Your task to perform on an android device: Go to internet settings Image 0: 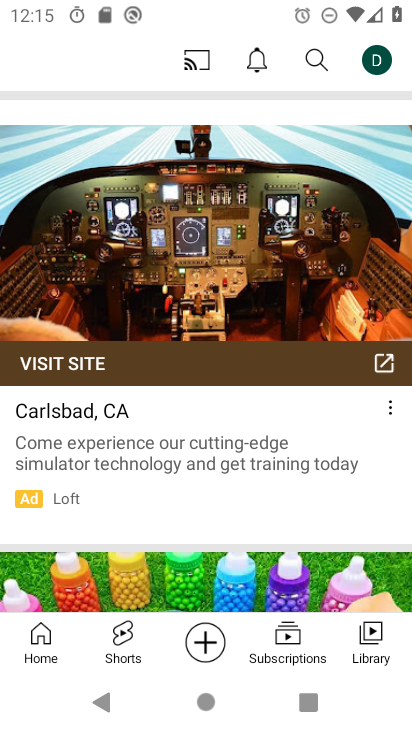
Step 0: press home button
Your task to perform on an android device: Go to internet settings Image 1: 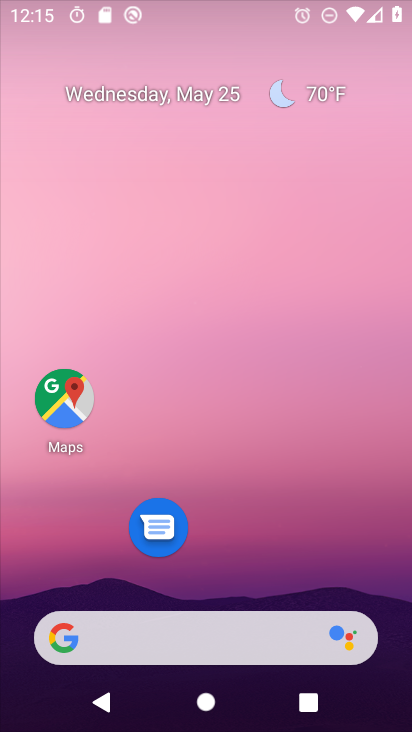
Step 1: drag from (253, 549) to (270, 79)
Your task to perform on an android device: Go to internet settings Image 2: 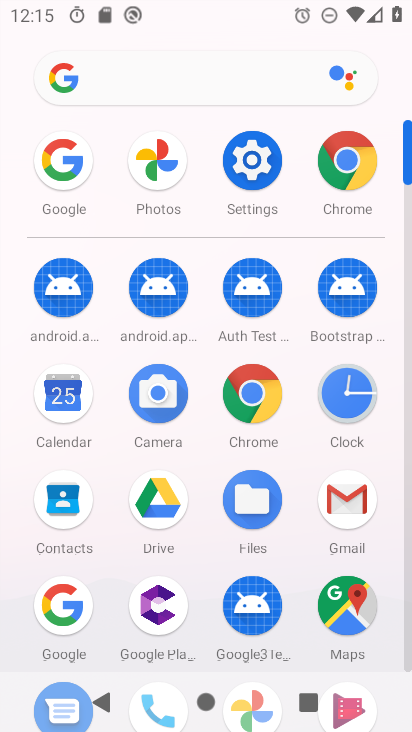
Step 2: click (248, 162)
Your task to perform on an android device: Go to internet settings Image 3: 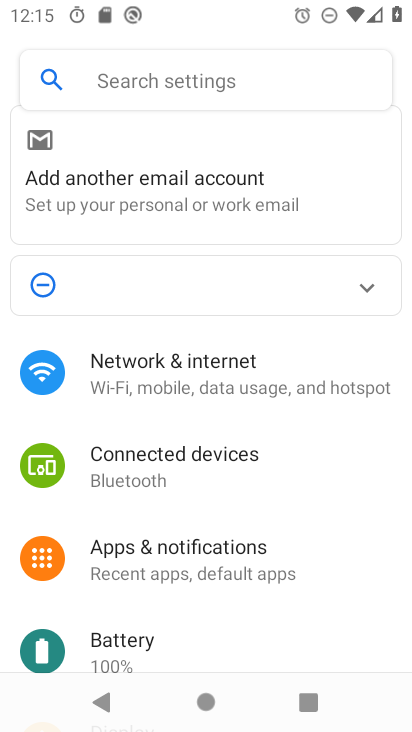
Step 3: click (210, 365)
Your task to perform on an android device: Go to internet settings Image 4: 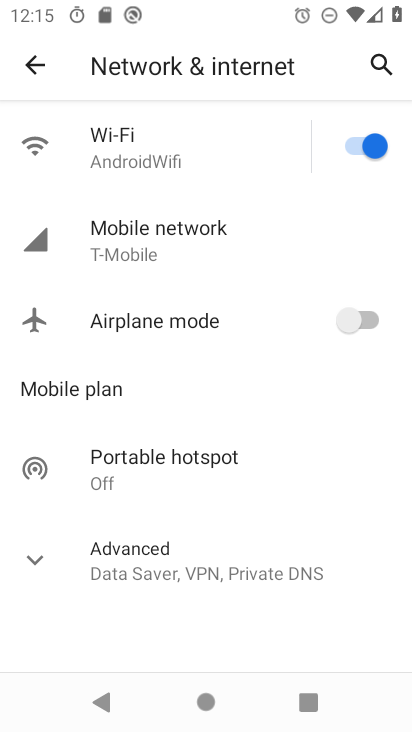
Step 4: click (177, 150)
Your task to perform on an android device: Go to internet settings Image 5: 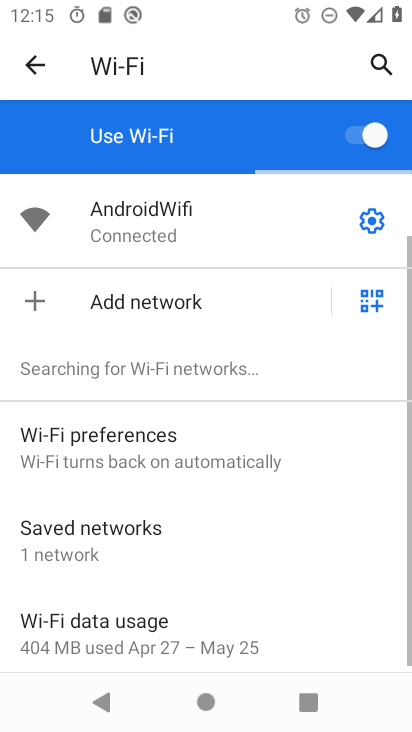
Step 5: click (193, 204)
Your task to perform on an android device: Go to internet settings Image 6: 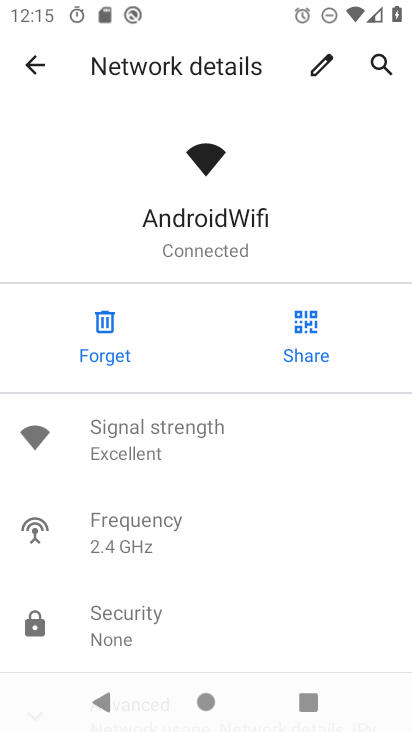
Step 6: task complete